Your task to perform on an android device: turn on javascript in the chrome app Image 0: 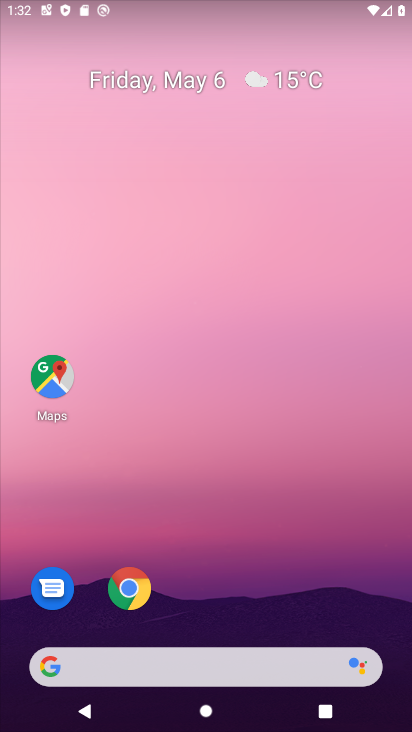
Step 0: drag from (215, 612) to (185, 345)
Your task to perform on an android device: turn on javascript in the chrome app Image 1: 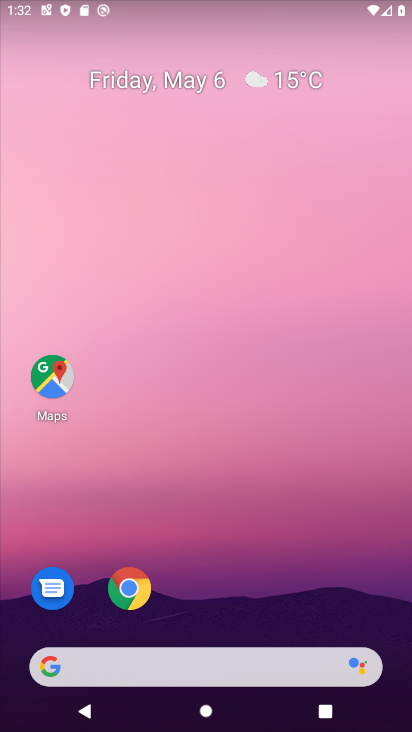
Step 1: drag from (191, 658) to (196, 148)
Your task to perform on an android device: turn on javascript in the chrome app Image 2: 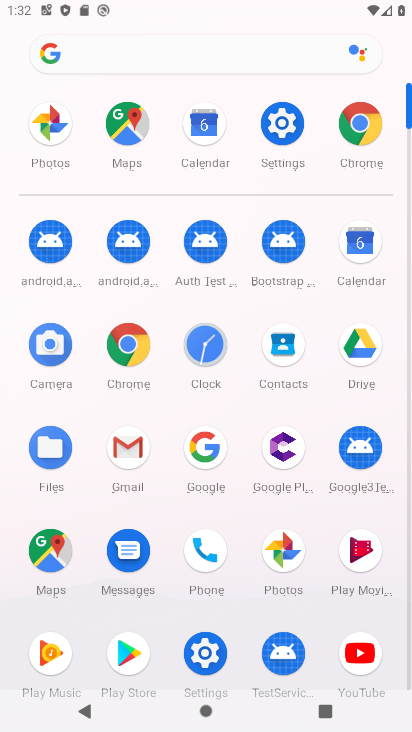
Step 2: click (126, 346)
Your task to perform on an android device: turn on javascript in the chrome app Image 3: 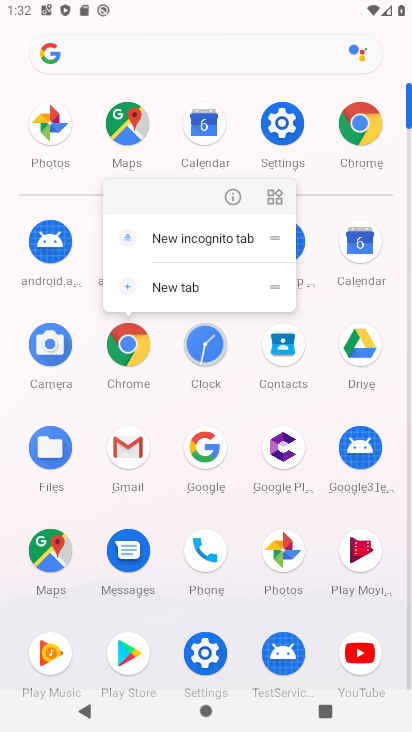
Step 3: click (239, 197)
Your task to perform on an android device: turn on javascript in the chrome app Image 4: 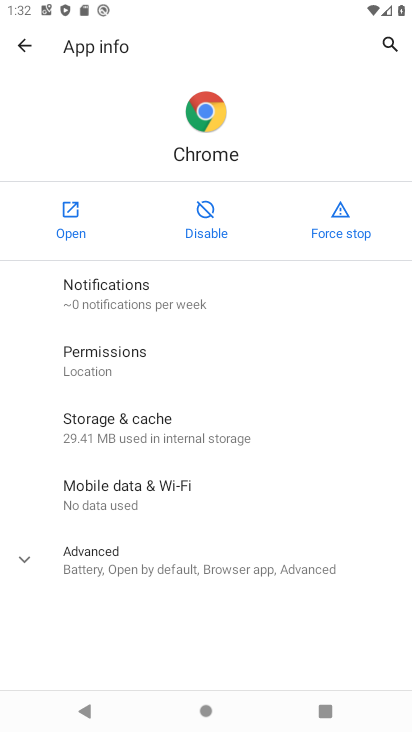
Step 4: click (75, 233)
Your task to perform on an android device: turn on javascript in the chrome app Image 5: 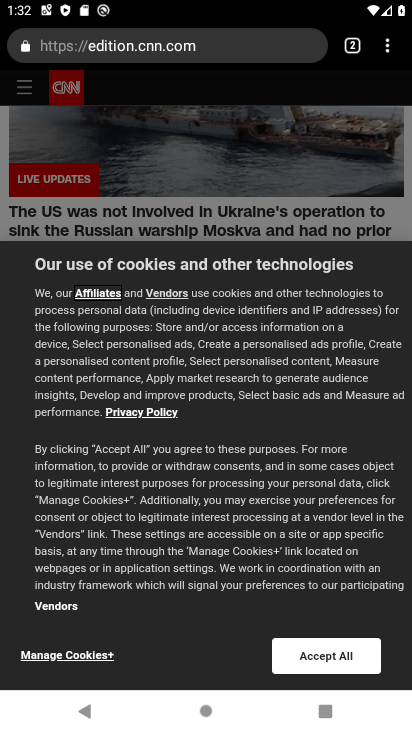
Step 5: click (382, 56)
Your task to perform on an android device: turn on javascript in the chrome app Image 6: 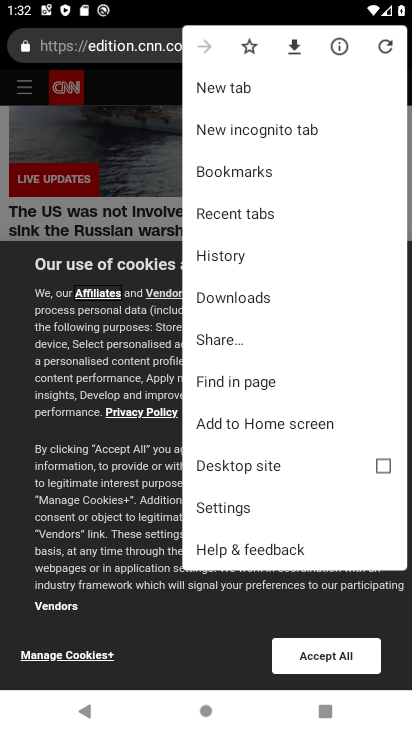
Step 6: click (221, 499)
Your task to perform on an android device: turn on javascript in the chrome app Image 7: 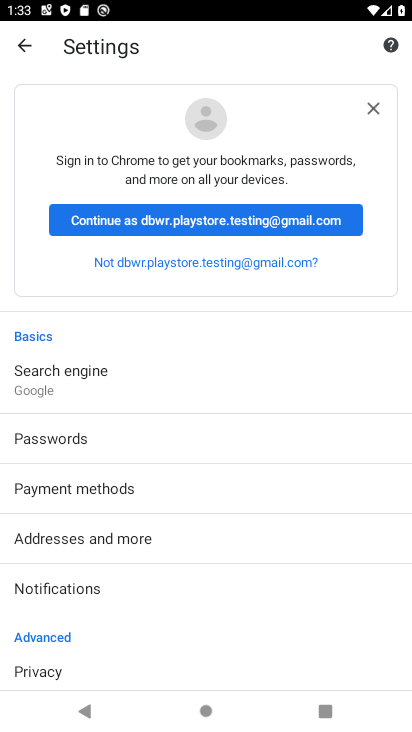
Step 7: drag from (161, 591) to (143, 275)
Your task to perform on an android device: turn on javascript in the chrome app Image 8: 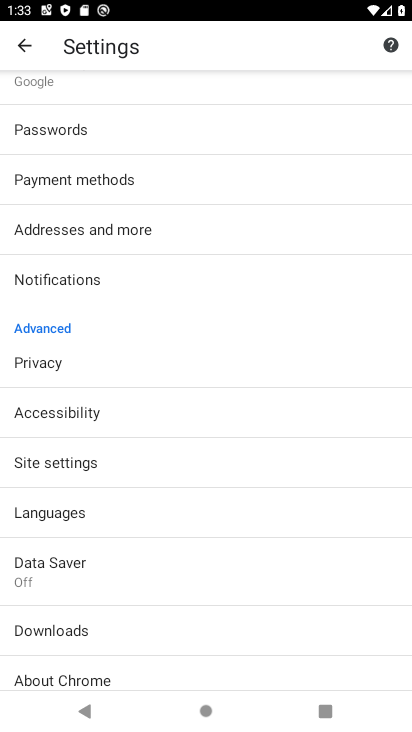
Step 8: drag from (161, 672) to (174, 349)
Your task to perform on an android device: turn on javascript in the chrome app Image 9: 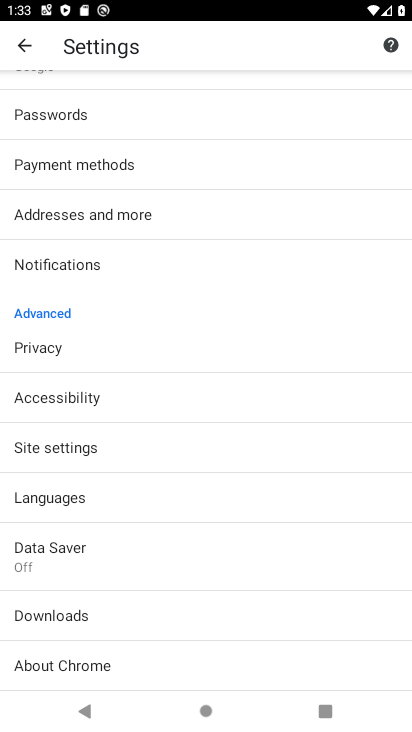
Step 9: click (94, 444)
Your task to perform on an android device: turn on javascript in the chrome app Image 10: 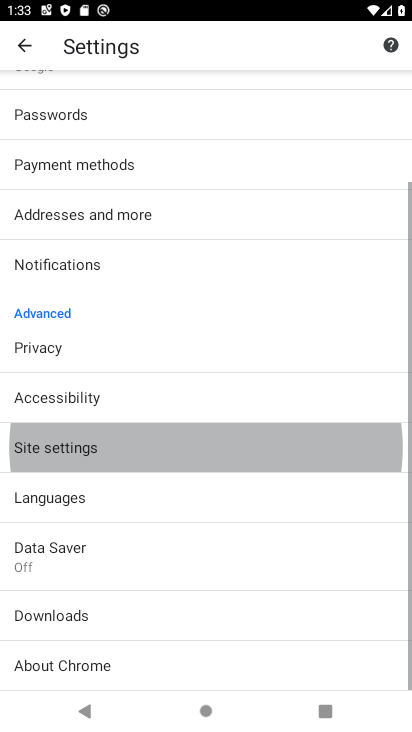
Step 10: click (94, 444)
Your task to perform on an android device: turn on javascript in the chrome app Image 11: 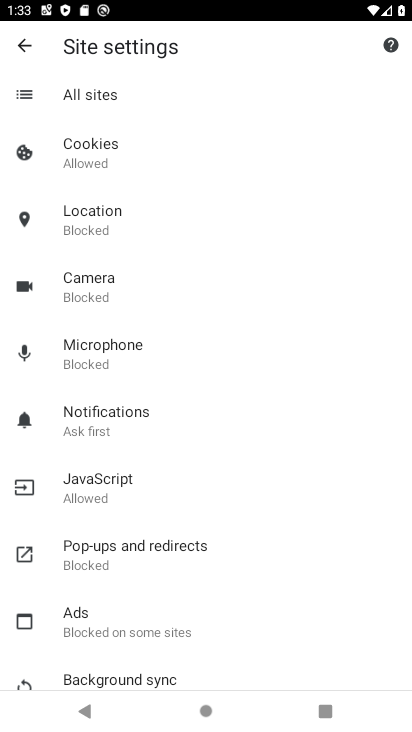
Step 11: click (121, 490)
Your task to perform on an android device: turn on javascript in the chrome app Image 12: 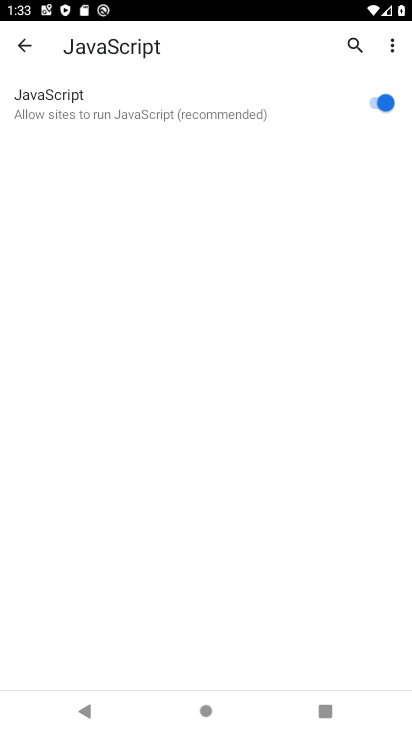
Step 12: task complete